Your task to perform on an android device: Open accessibility settings Image 0: 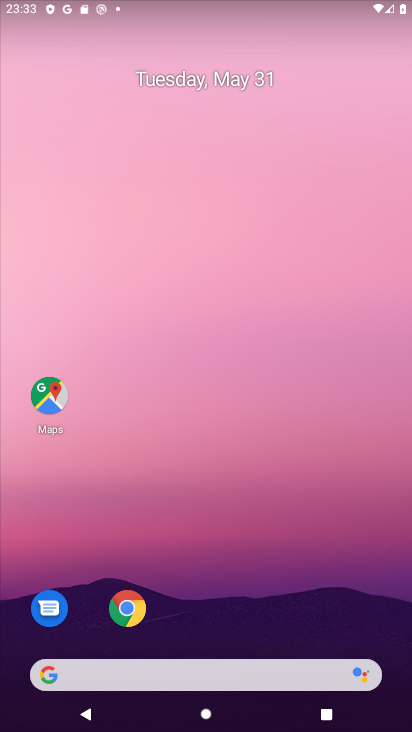
Step 0: drag from (292, 583) to (252, 34)
Your task to perform on an android device: Open accessibility settings Image 1: 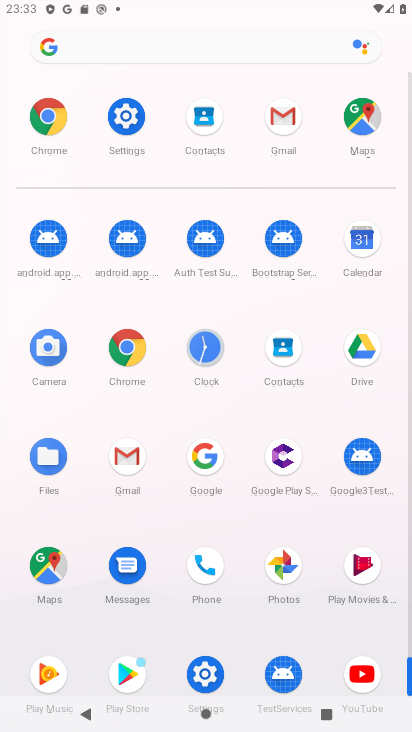
Step 1: click (142, 115)
Your task to perform on an android device: Open accessibility settings Image 2: 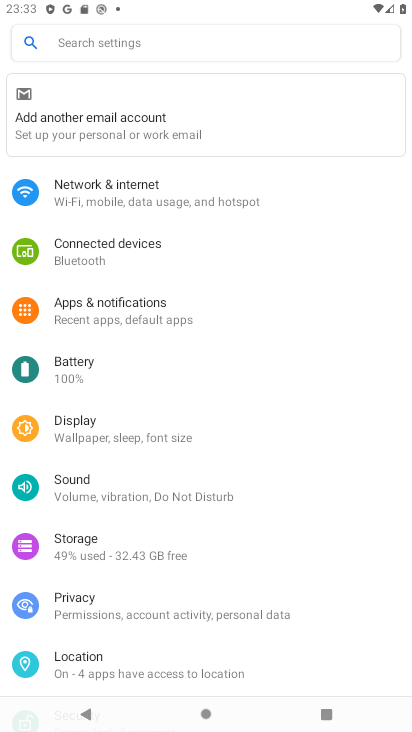
Step 2: drag from (85, 664) to (139, 118)
Your task to perform on an android device: Open accessibility settings Image 3: 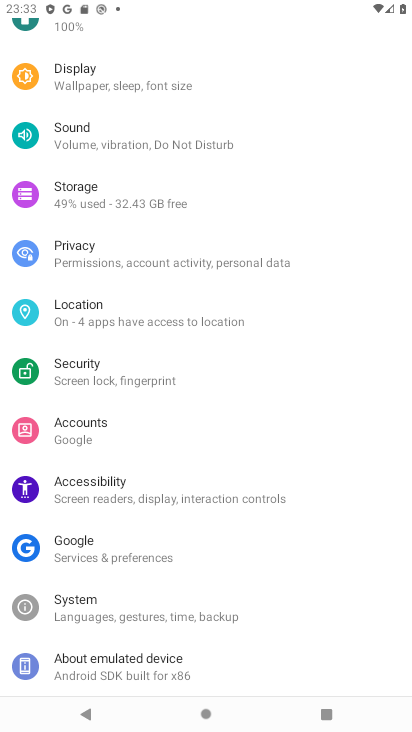
Step 3: click (82, 486)
Your task to perform on an android device: Open accessibility settings Image 4: 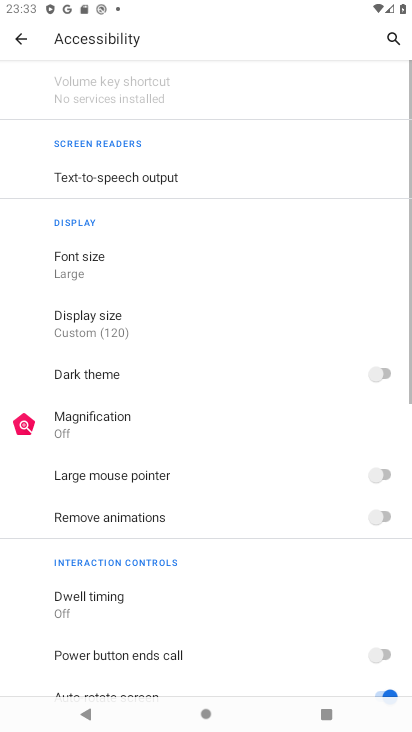
Step 4: task complete